Your task to perform on an android device: turn on the 12-hour format for clock Image 0: 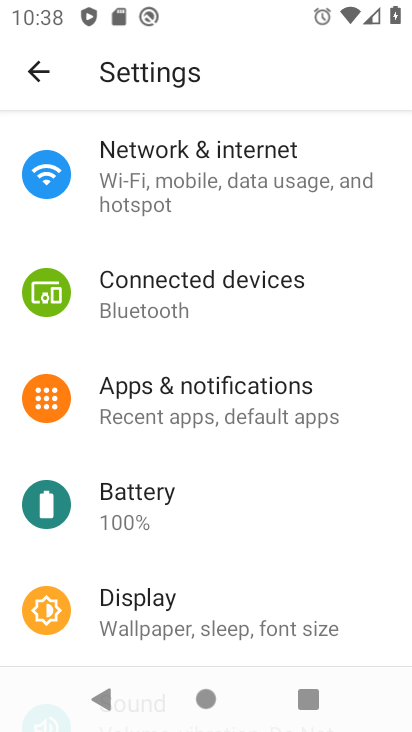
Step 0: press home button
Your task to perform on an android device: turn on the 12-hour format for clock Image 1: 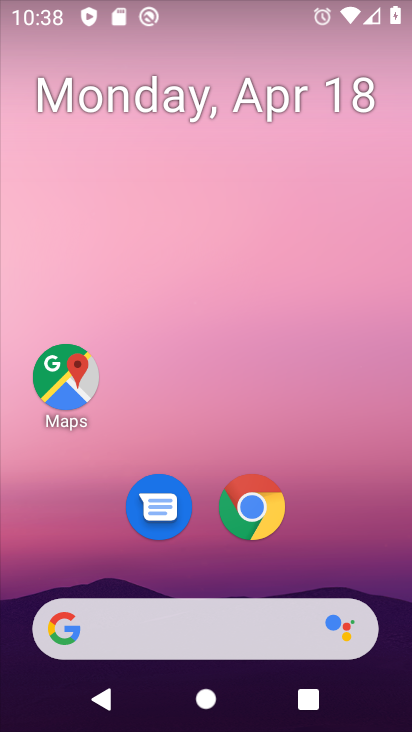
Step 1: drag from (259, 577) to (394, 205)
Your task to perform on an android device: turn on the 12-hour format for clock Image 2: 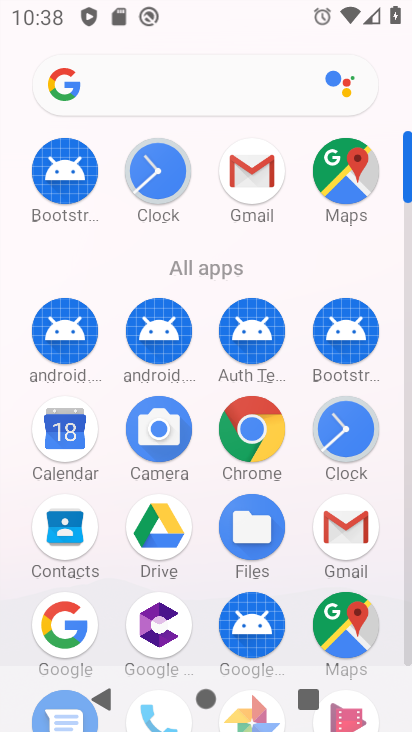
Step 2: click (349, 437)
Your task to perform on an android device: turn on the 12-hour format for clock Image 3: 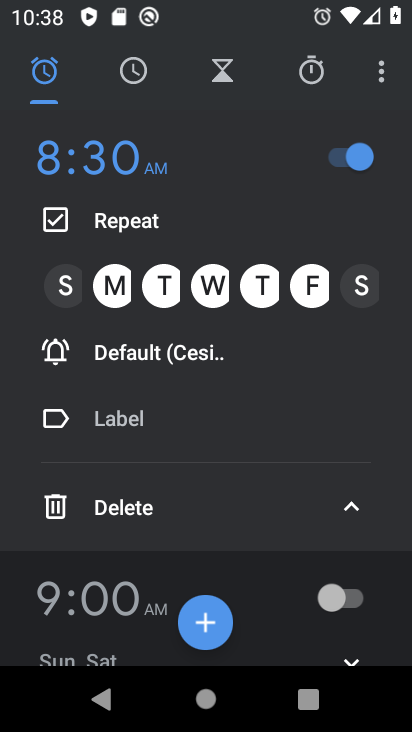
Step 3: click (381, 79)
Your task to perform on an android device: turn on the 12-hour format for clock Image 4: 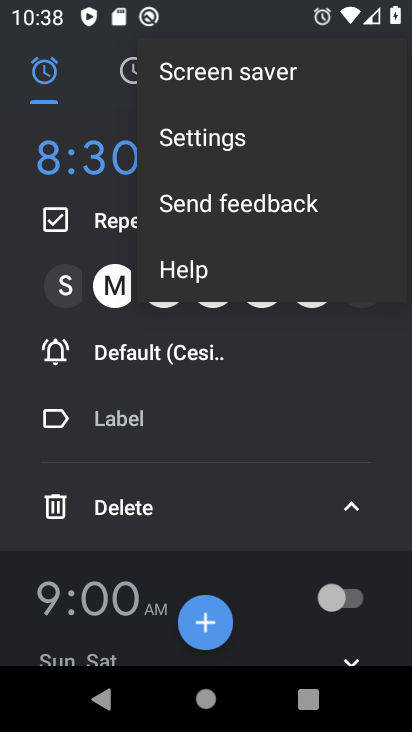
Step 4: click (203, 146)
Your task to perform on an android device: turn on the 12-hour format for clock Image 5: 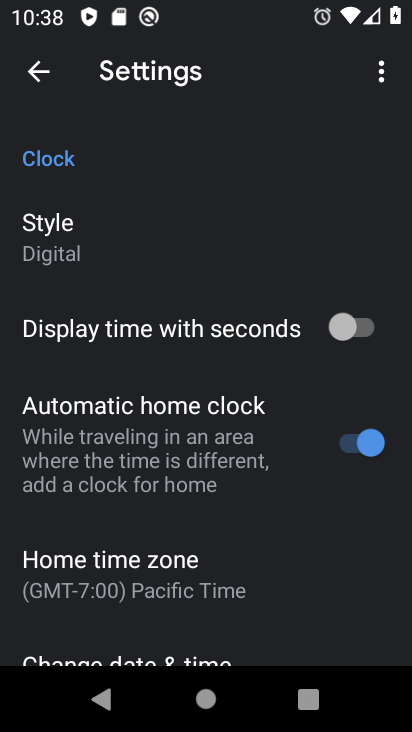
Step 5: drag from (223, 452) to (286, 269)
Your task to perform on an android device: turn on the 12-hour format for clock Image 6: 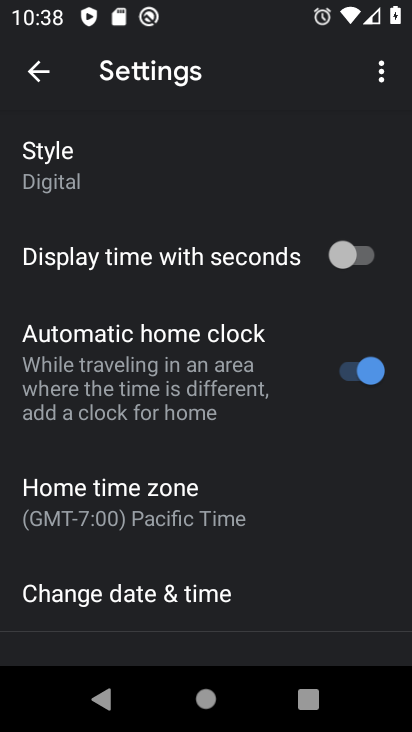
Step 6: click (174, 598)
Your task to perform on an android device: turn on the 12-hour format for clock Image 7: 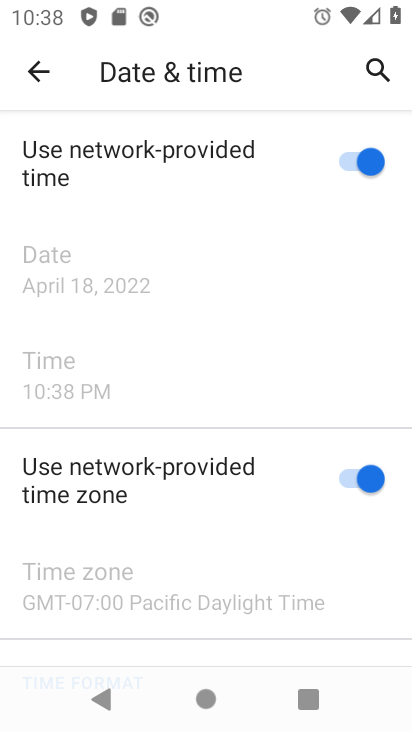
Step 7: drag from (244, 462) to (331, 237)
Your task to perform on an android device: turn on the 12-hour format for clock Image 8: 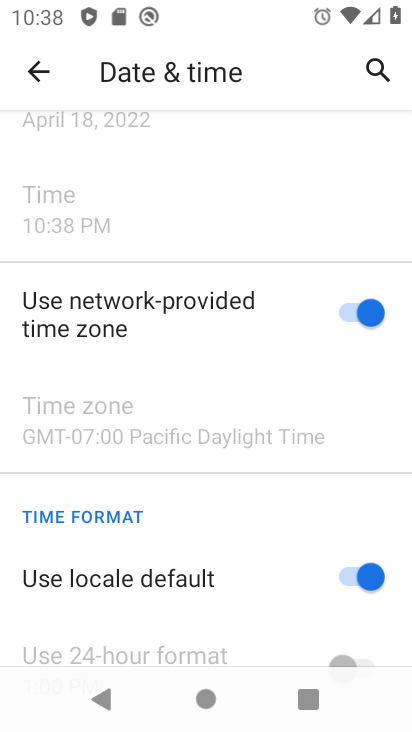
Step 8: click (352, 575)
Your task to perform on an android device: turn on the 12-hour format for clock Image 9: 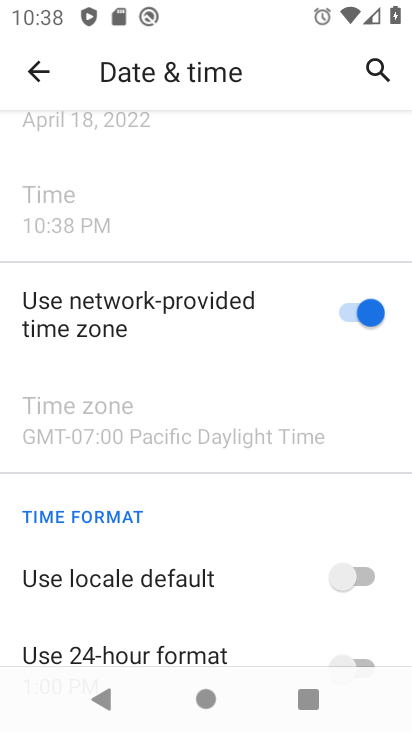
Step 9: drag from (309, 591) to (375, 347)
Your task to perform on an android device: turn on the 12-hour format for clock Image 10: 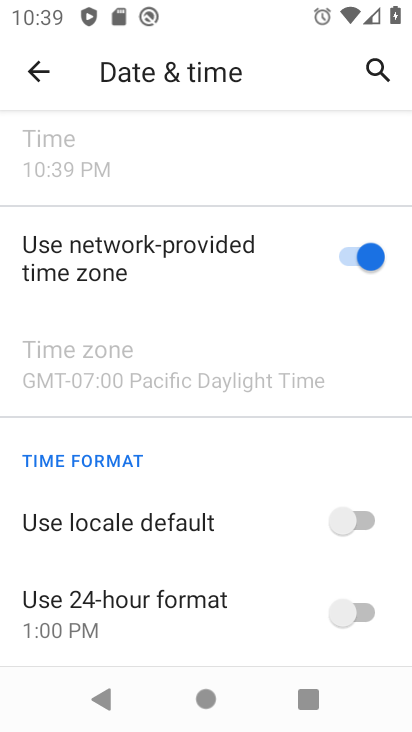
Step 10: click (355, 619)
Your task to perform on an android device: turn on the 12-hour format for clock Image 11: 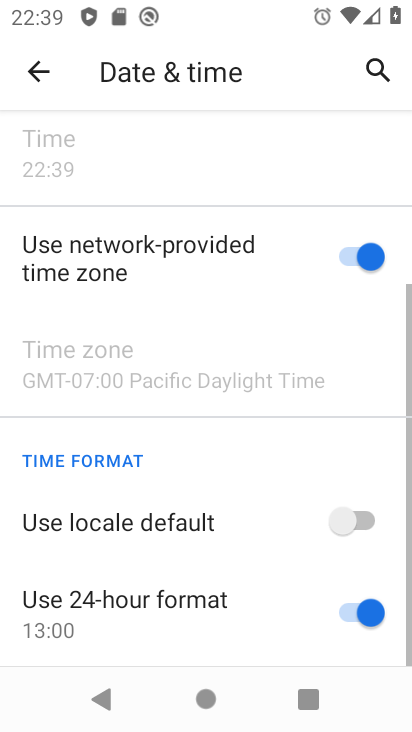
Step 11: click (355, 619)
Your task to perform on an android device: turn on the 12-hour format for clock Image 12: 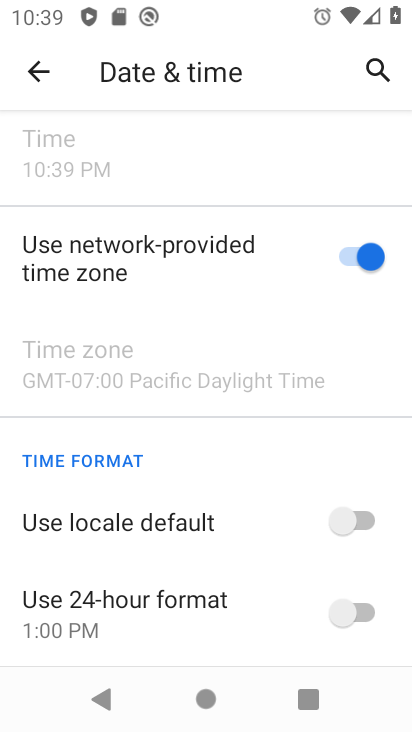
Step 12: task complete